Your task to perform on an android device: turn on priority inbox in the gmail app Image 0: 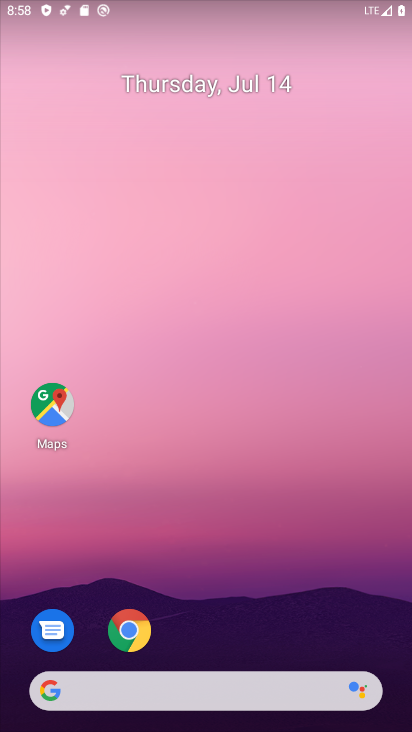
Step 0: drag from (199, 636) to (29, 168)
Your task to perform on an android device: turn on priority inbox in the gmail app Image 1: 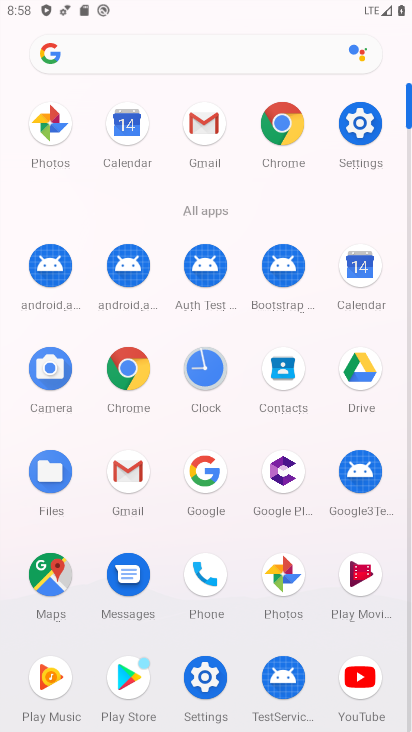
Step 1: click (125, 468)
Your task to perform on an android device: turn on priority inbox in the gmail app Image 2: 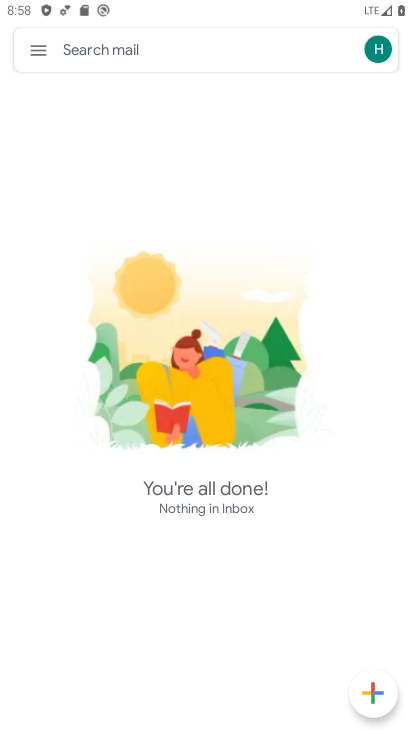
Step 2: click (28, 58)
Your task to perform on an android device: turn on priority inbox in the gmail app Image 3: 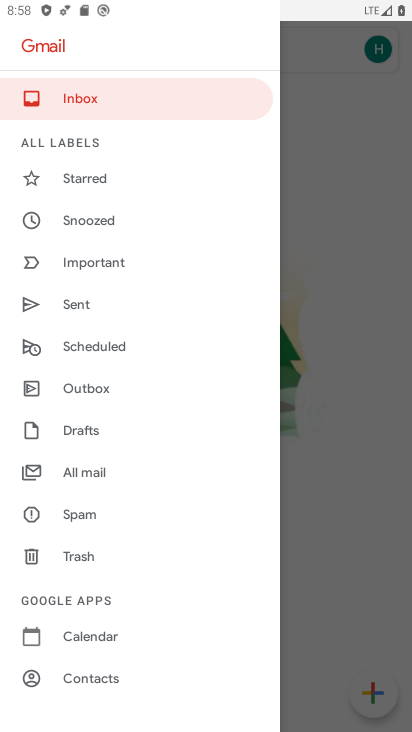
Step 3: drag from (179, 475) to (143, 90)
Your task to perform on an android device: turn on priority inbox in the gmail app Image 4: 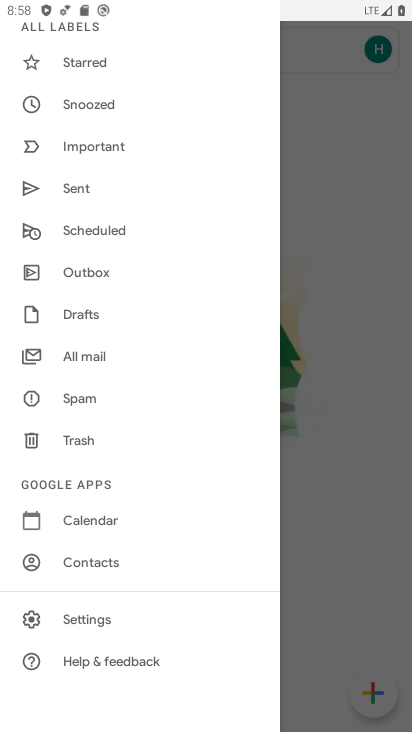
Step 4: click (70, 613)
Your task to perform on an android device: turn on priority inbox in the gmail app Image 5: 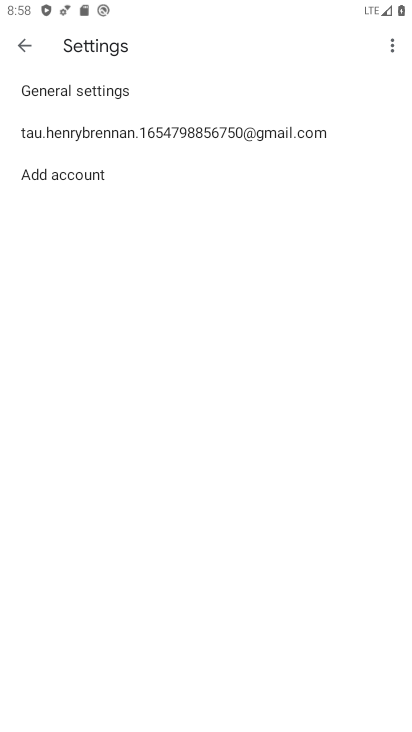
Step 5: click (45, 141)
Your task to perform on an android device: turn on priority inbox in the gmail app Image 6: 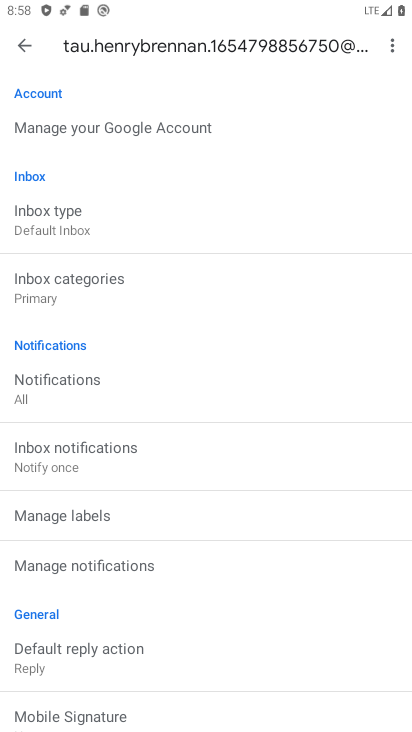
Step 6: click (47, 215)
Your task to perform on an android device: turn on priority inbox in the gmail app Image 7: 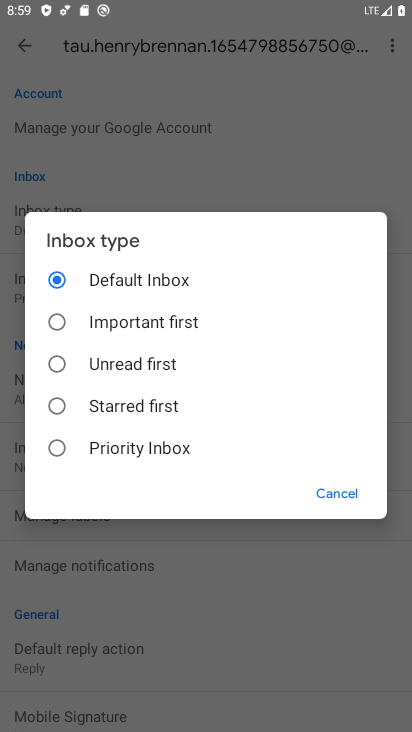
Step 7: click (86, 445)
Your task to perform on an android device: turn on priority inbox in the gmail app Image 8: 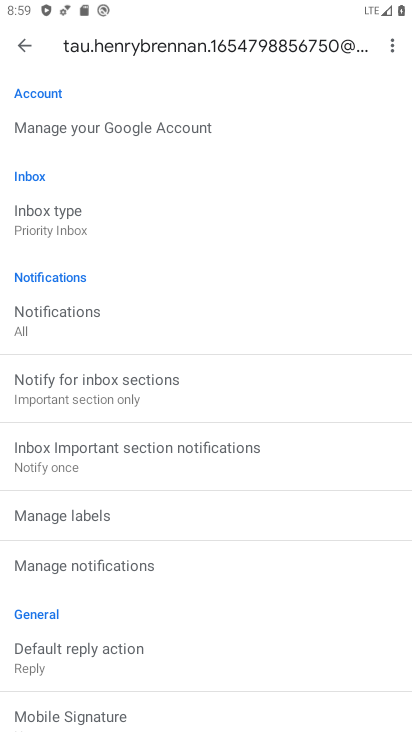
Step 8: task complete